Your task to perform on an android device: clear history in the chrome app Image 0: 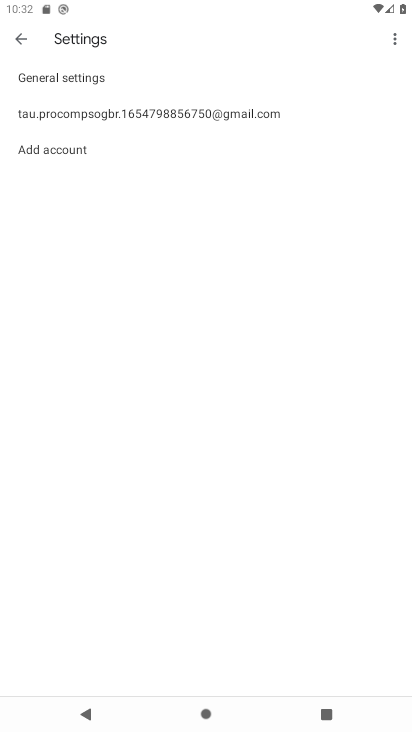
Step 0: press home button
Your task to perform on an android device: clear history in the chrome app Image 1: 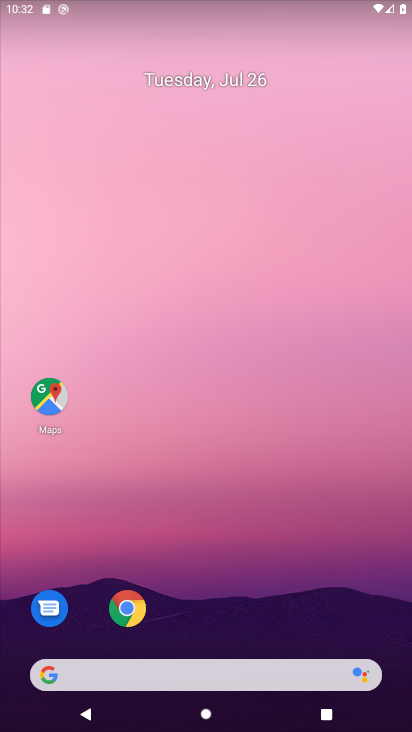
Step 1: drag from (293, 626) to (300, 48)
Your task to perform on an android device: clear history in the chrome app Image 2: 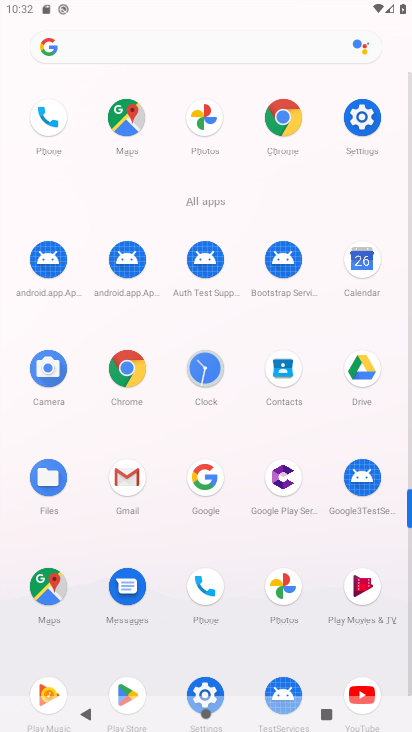
Step 2: click (286, 119)
Your task to perform on an android device: clear history in the chrome app Image 3: 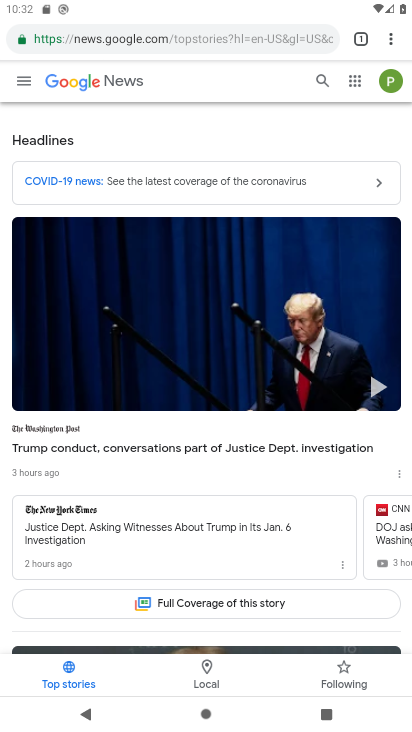
Step 3: drag from (393, 36) to (267, 217)
Your task to perform on an android device: clear history in the chrome app Image 4: 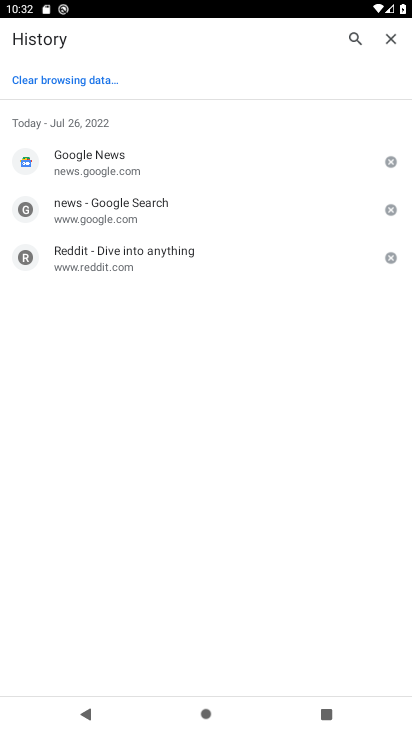
Step 4: click (107, 83)
Your task to perform on an android device: clear history in the chrome app Image 5: 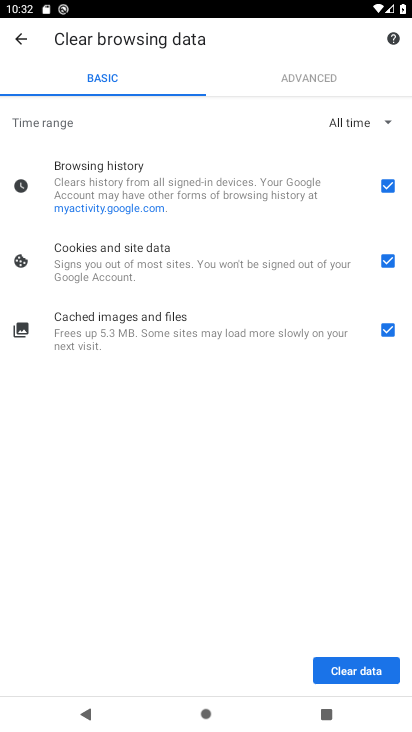
Step 5: click (383, 675)
Your task to perform on an android device: clear history in the chrome app Image 6: 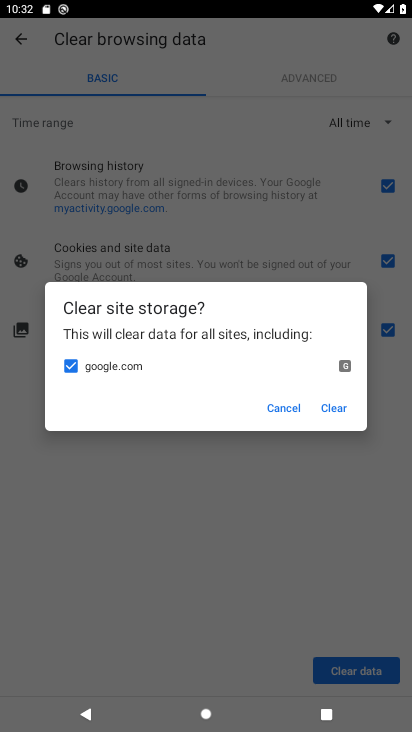
Step 6: click (347, 413)
Your task to perform on an android device: clear history in the chrome app Image 7: 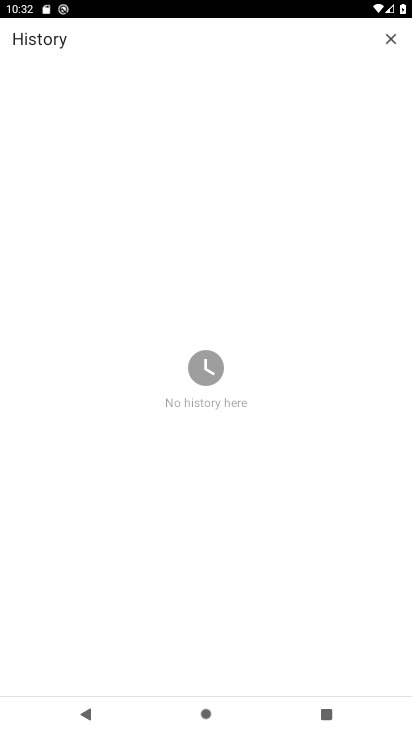
Step 7: task complete